Your task to perform on an android device: Go to calendar. Show me events next week Image 0: 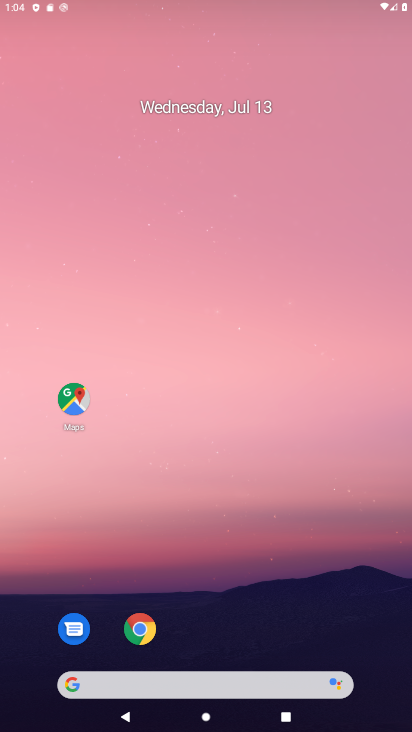
Step 0: drag from (234, 650) to (223, 115)
Your task to perform on an android device: Go to calendar. Show me events next week Image 1: 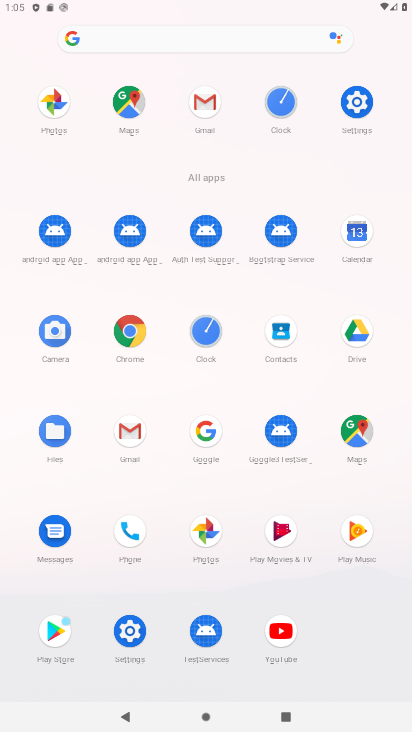
Step 1: click (279, 121)
Your task to perform on an android device: Go to calendar. Show me events next week Image 2: 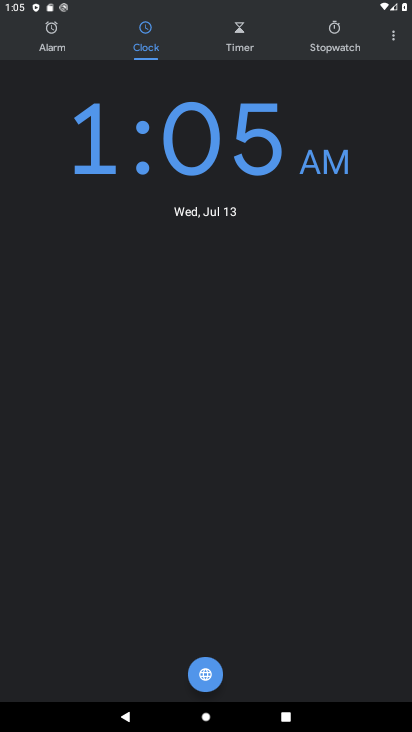
Step 2: press home button
Your task to perform on an android device: Go to calendar. Show me events next week Image 3: 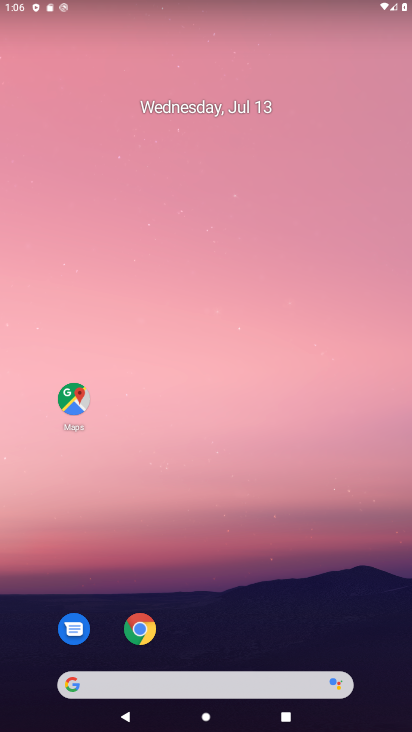
Step 3: drag from (306, 617) to (253, 112)
Your task to perform on an android device: Go to calendar. Show me events next week Image 4: 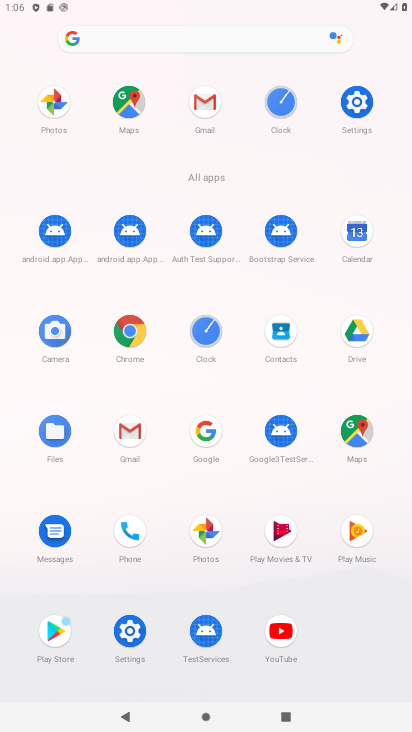
Step 4: click (348, 226)
Your task to perform on an android device: Go to calendar. Show me events next week Image 5: 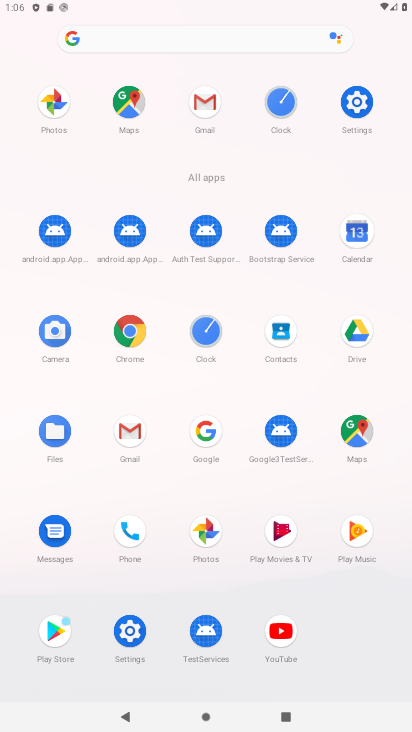
Step 5: task complete